Your task to perform on an android device: toggle airplane mode Image 0: 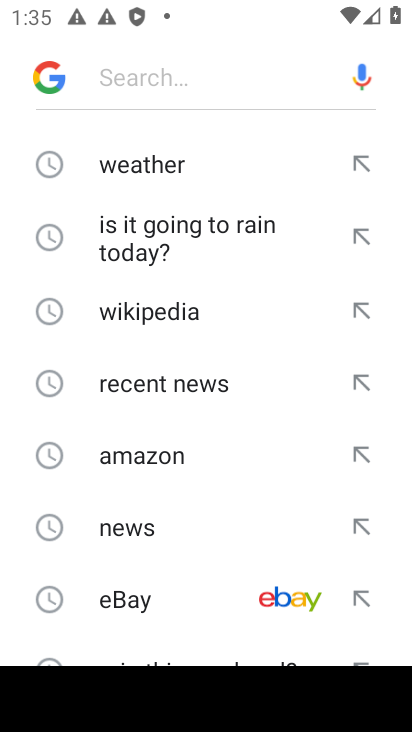
Step 0: press home button
Your task to perform on an android device: toggle airplane mode Image 1: 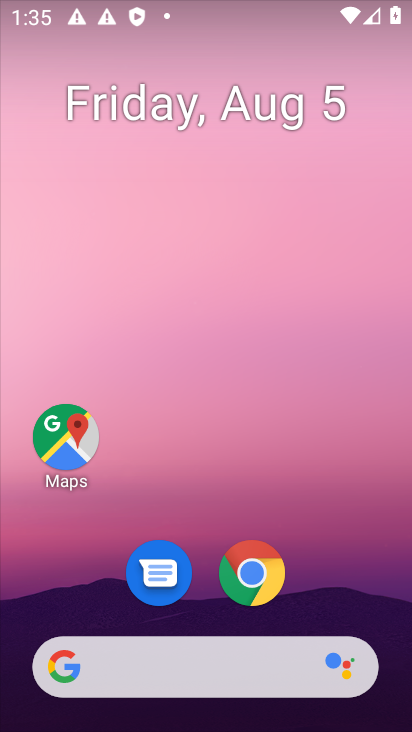
Step 1: drag from (329, 587) to (337, 208)
Your task to perform on an android device: toggle airplane mode Image 2: 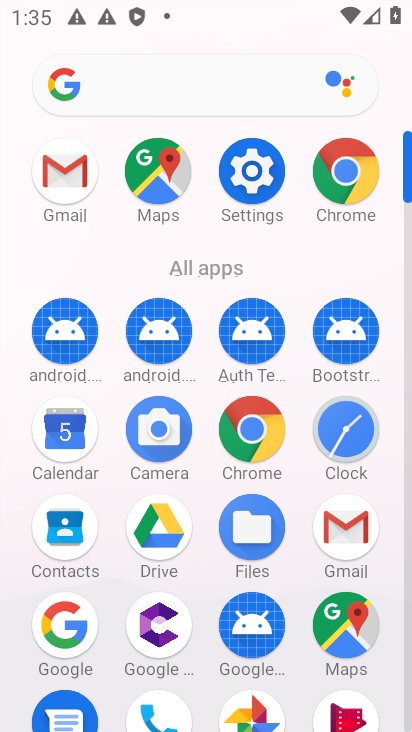
Step 2: click (253, 166)
Your task to perform on an android device: toggle airplane mode Image 3: 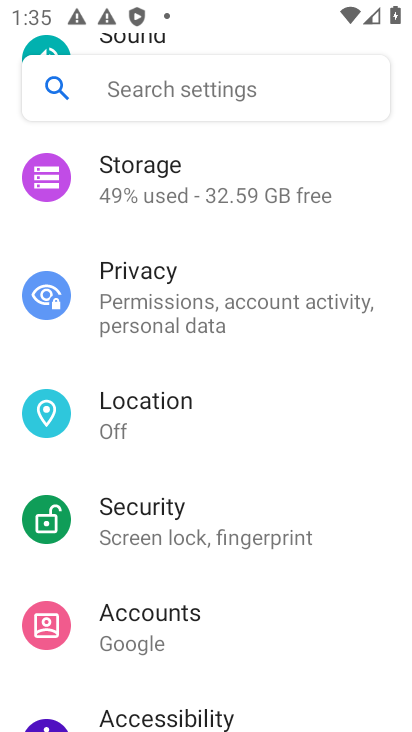
Step 3: drag from (375, 209) to (364, 335)
Your task to perform on an android device: toggle airplane mode Image 4: 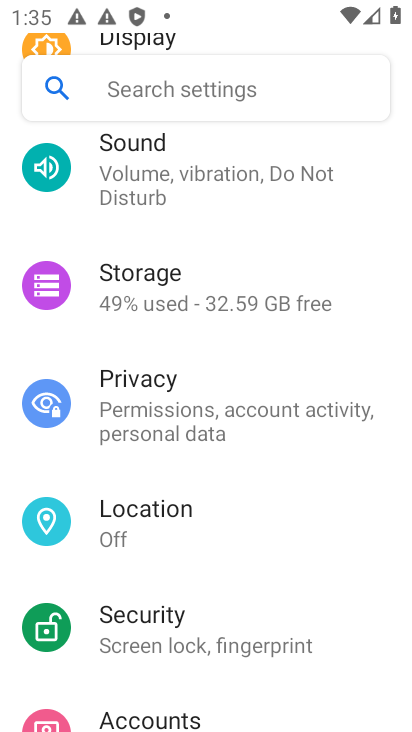
Step 4: drag from (376, 213) to (373, 339)
Your task to perform on an android device: toggle airplane mode Image 5: 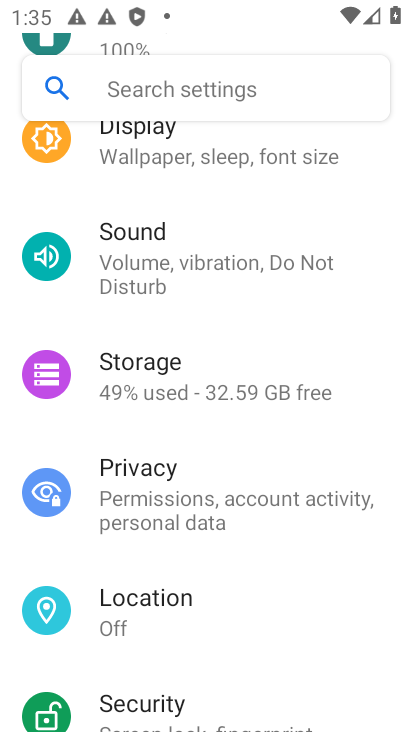
Step 5: drag from (373, 226) to (374, 338)
Your task to perform on an android device: toggle airplane mode Image 6: 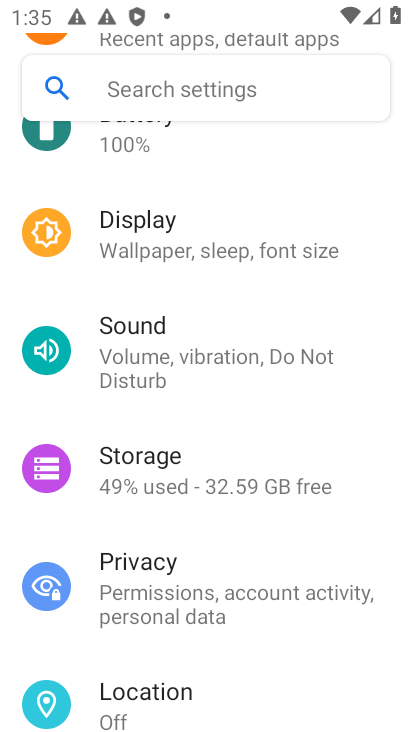
Step 6: drag from (375, 238) to (382, 360)
Your task to perform on an android device: toggle airplane mode Image 7: 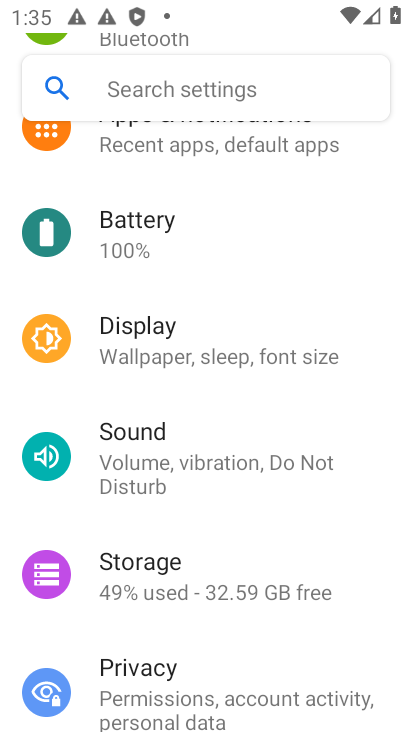
Step 7: drag from (382, 219) to (385, 345)
Your task to perform on an android device: toggle airplane mode Image 8: 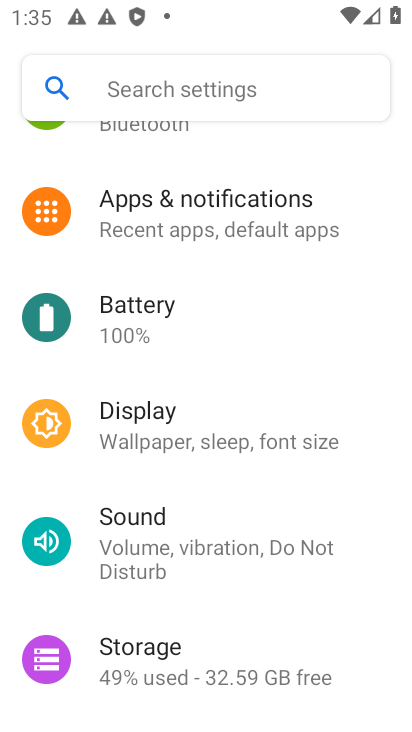
Step 8: drag from (383, 202) to (380, 322)
Your task to perform on an android device: toggle airplane mode Image 9: 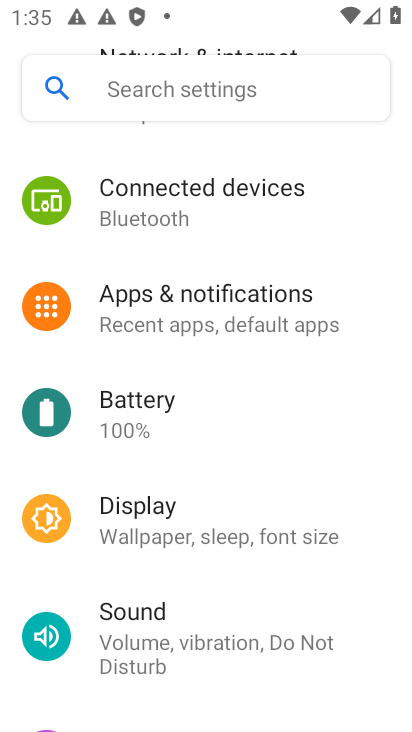
Step 9: drag from (370, 177) to (370, 260)
Your task to perform on an android device: toggle airplane mode Image 10: 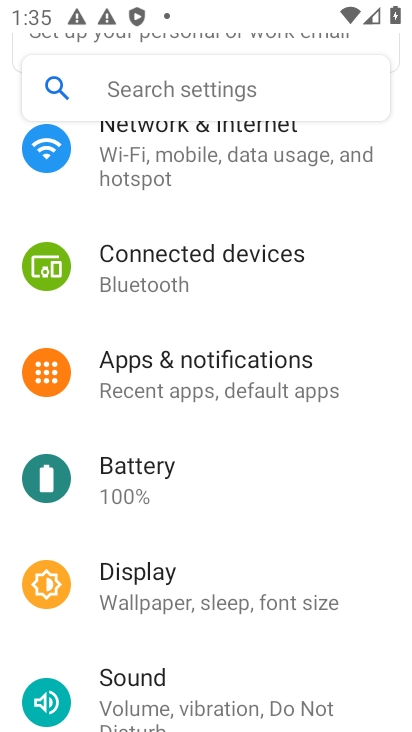
Step 10: drag from (370, 139) to (372, 300)
Your task to perform on an android device: toggle airplane mode Image 11: 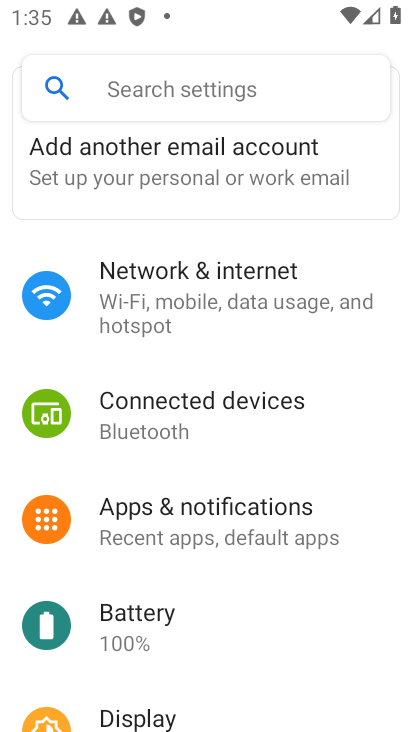
Step 11: click (289, 291)
Your task to perform on an android device: toggle airplane mode Image 12: 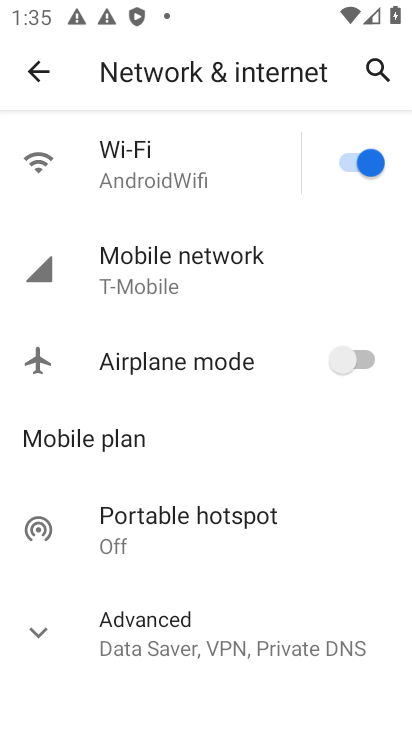
Step 12: click (348, 373)
Your task to perform on an android device: toggle airplane mode Image 13: 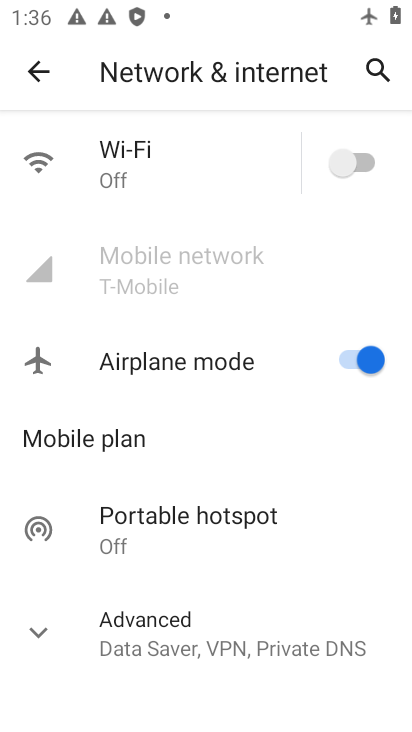
Step 13: task complete